Your task to perform on an android device: turn off improve location accuracy Image 0: 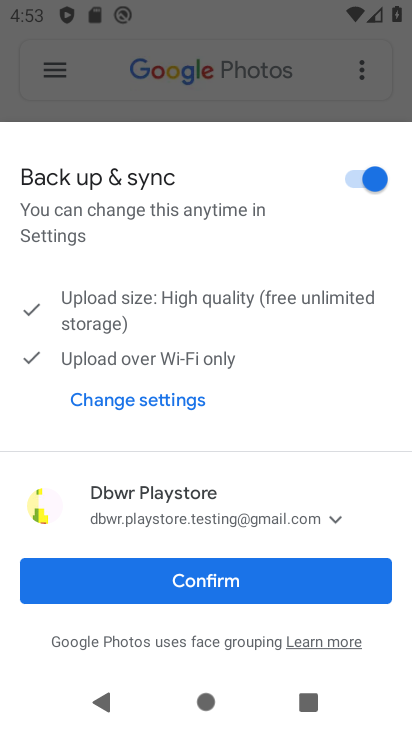
Step 0: press back button
Your task to perform on an android device: turn off improve location accuracy Image 1: 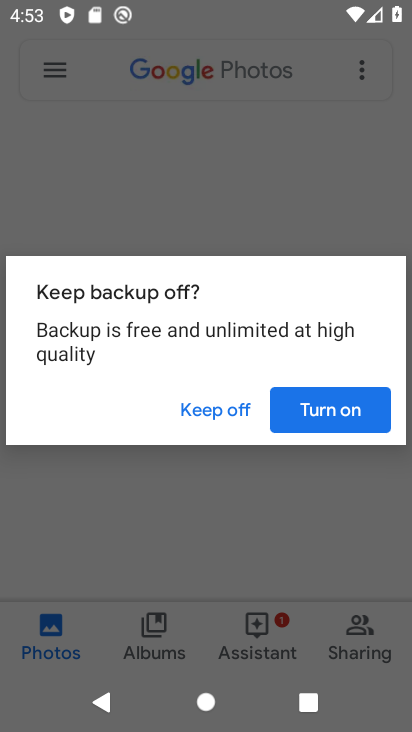
Step 1: press back button
Your task to perform on an android device: turn off improve location accuracy Image 2: 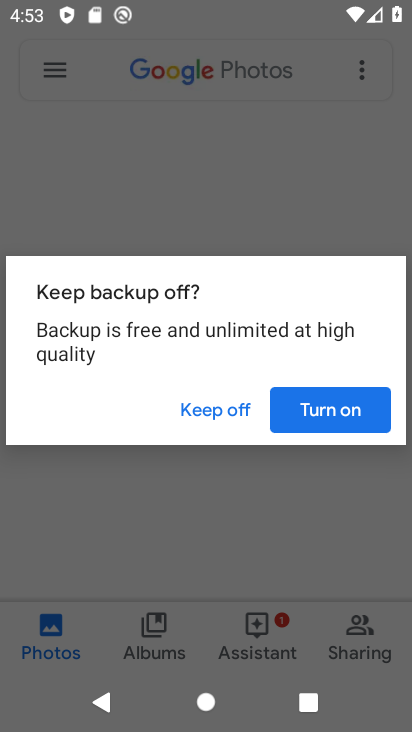
Step 2: press home button
Your task to perform on an android device: turn off improve location accuracy Image 3: 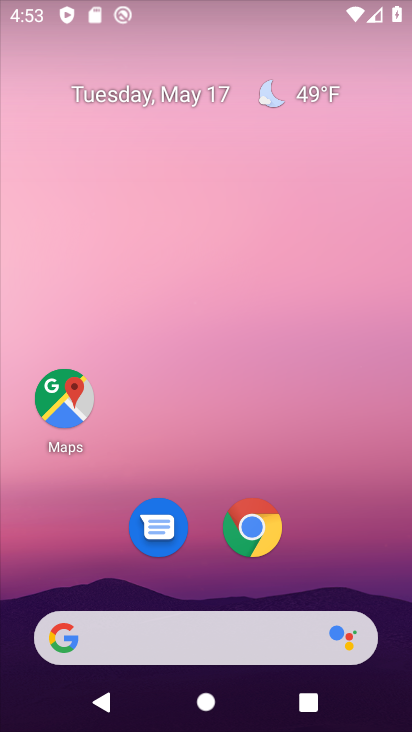
Step 3: drag from (327, 583) to (279, 69)
Your task to perform on an android device: turn off improve location accuracy Image 4: 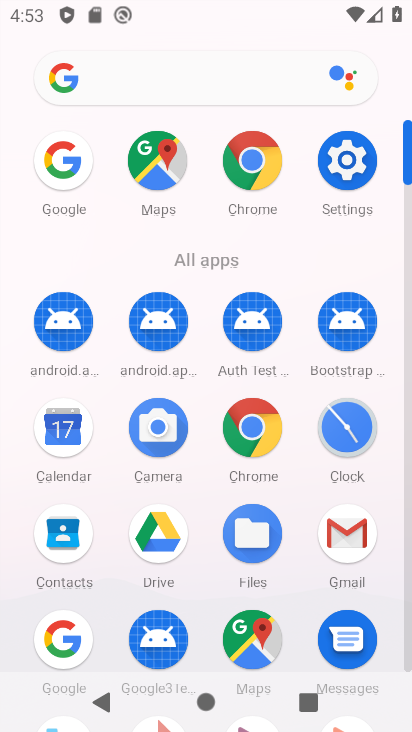
Step 4: drag from (17, 533) to (17, 199)
Your task to perform on an android device: turn off improve location accuracy Image 5: 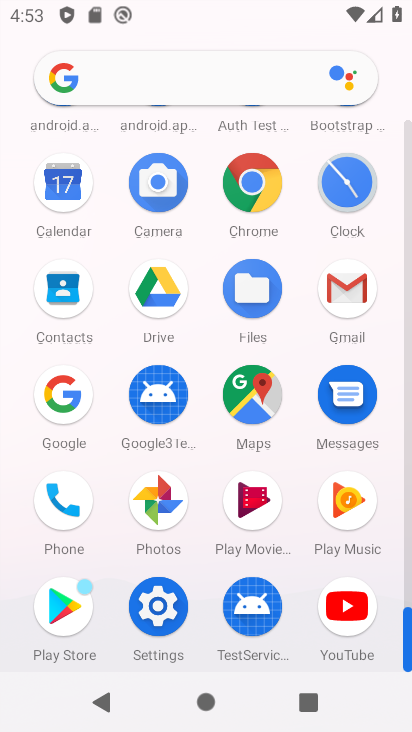
Step 5: click (153, 599)
Your task to perform on an android device: turn off improve location accuracy Image 6: 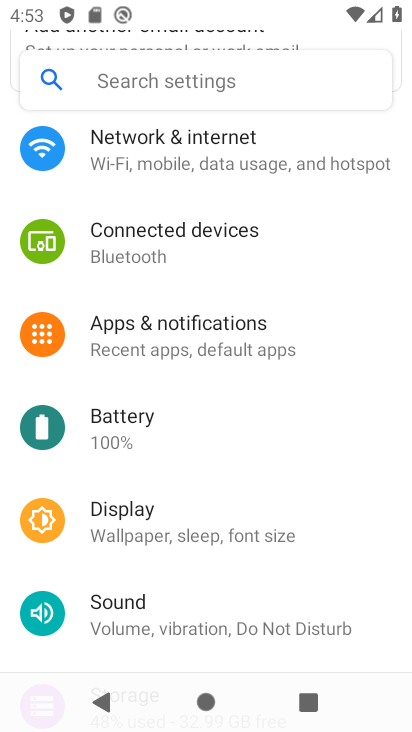
Step 6: drag from (240, 567) to (282, 182)
Your task to perform on an android device: turn off improve location accuracy Image 7: 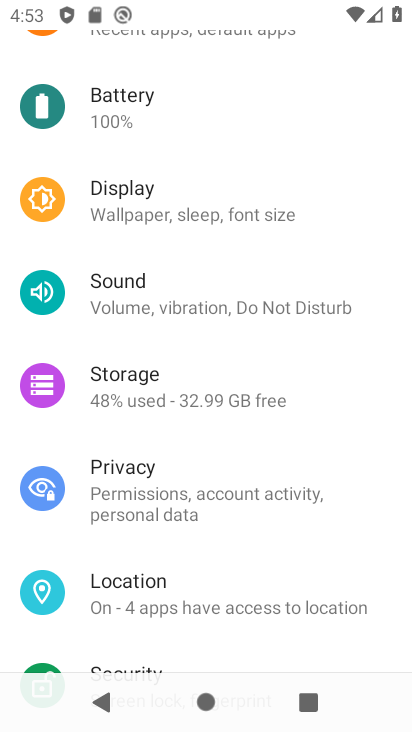
Step 7: drag from (200, 523) to (269, 132)
Your task to perform on an android device: turn off improve location accuracy Image 8: 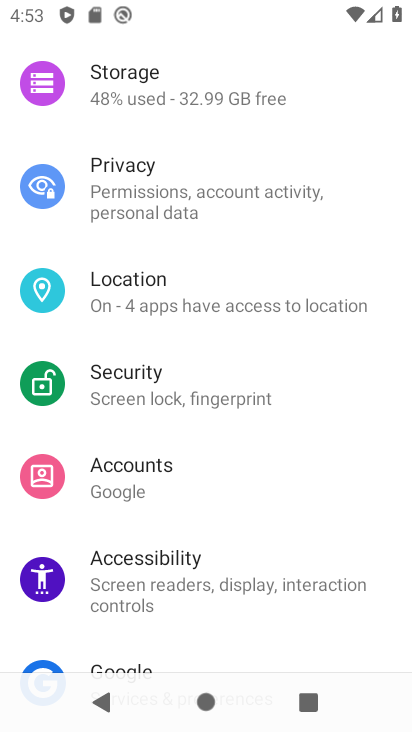
Step 8: drag from (208, 553) to (276, 156)
Your task to perform on an android device: turn off improve location accuracy Image 9: 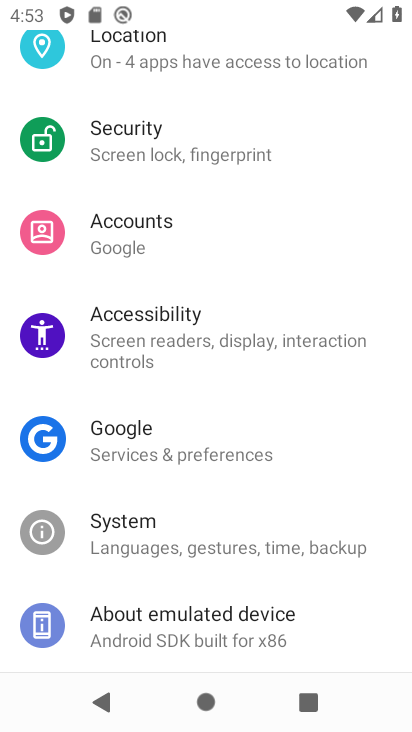
Step 9: click (182, 51)
Your task to perform on an android device: turn off improve location accuracy Image 10: 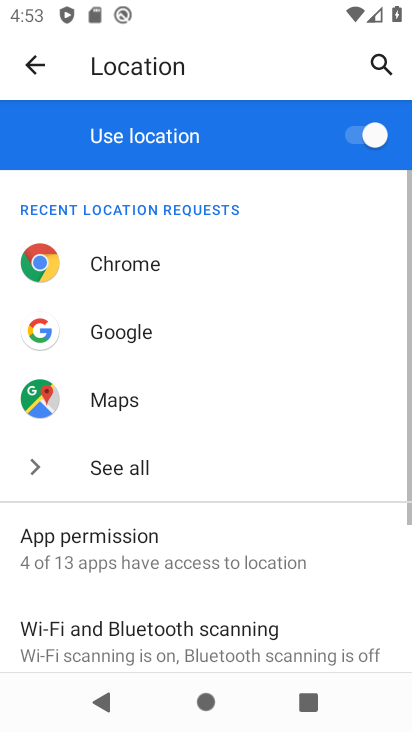
Step 10: drag from (244, 534) to (243, 160)
Your task to perform on an android device: turn off improve location accuracy Image 11: 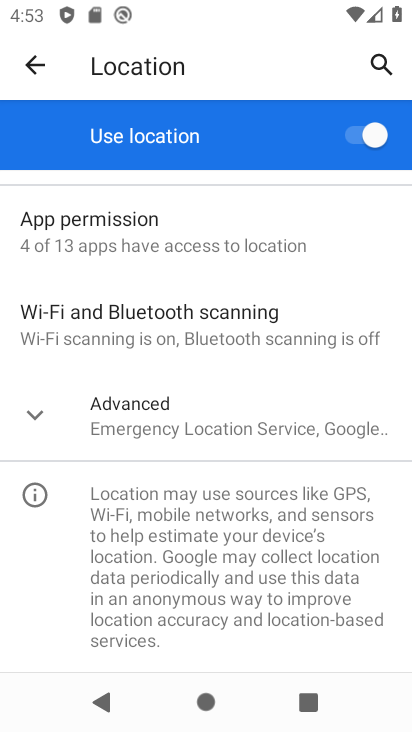
Step 11: click (160, 592)
Your task to perform on an android device: turn off improve location accuracy Image 12: 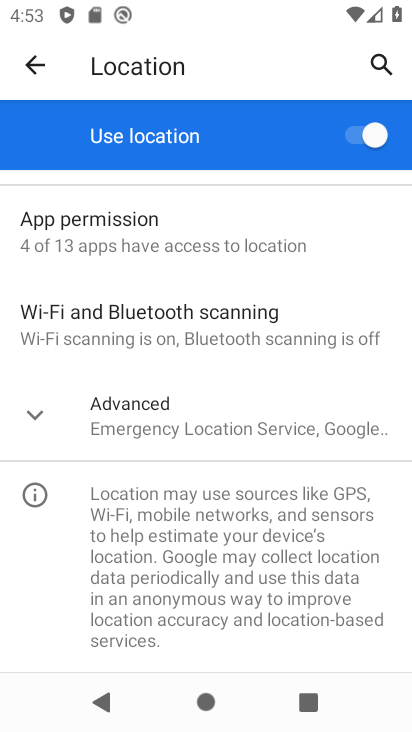
Step 12: click (160, 413)
Your task to perform on an android device: turn off improve location accuracy Image 13: 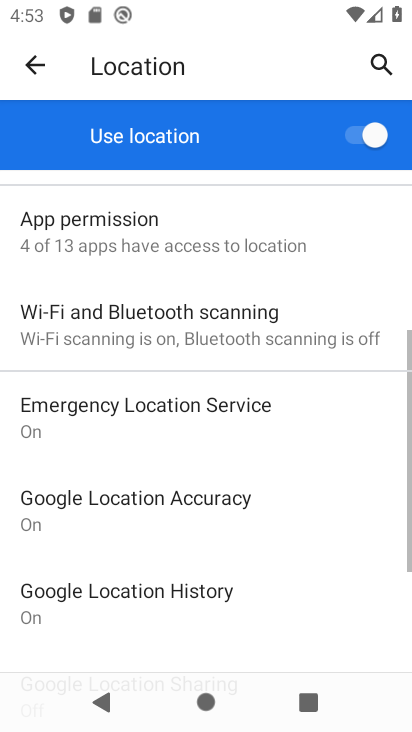
Step 13: drag from (220, 582) to (247, 247)
Your task to perform on an android device: turn off improve location accuracy Image 14: 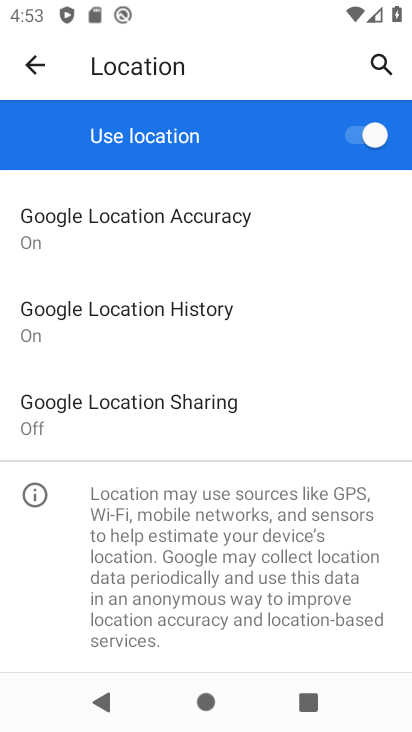
Step 14: click (201, 216)
Your task to perform on an android device: turn off improve location accuracy Image 15: 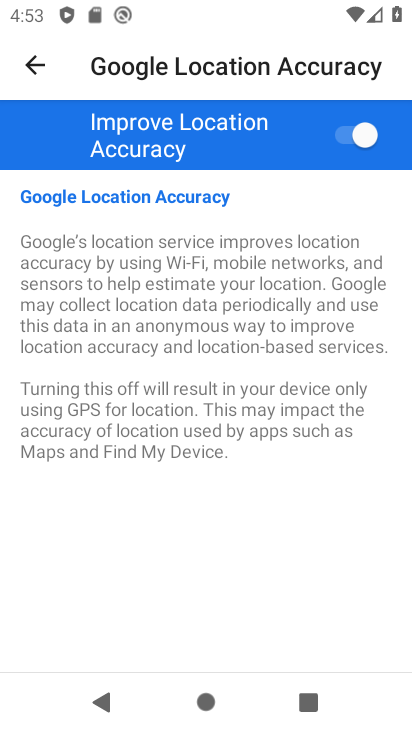
Step 15: click (356, 129)
Your task to perform on an android device: turn off improve location accuracy Image 16: 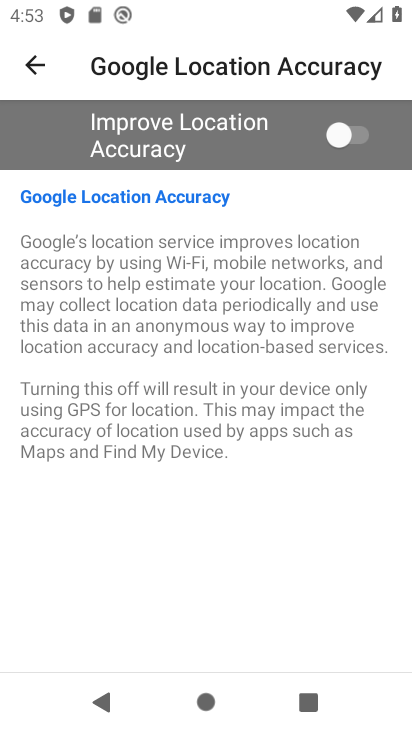
Step 16: task complete